Your task to perform on an android device: Go to CNN.com Image 0: 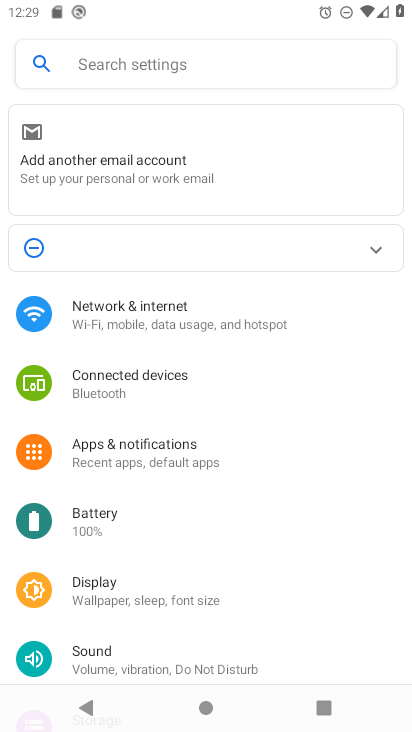
Step 0: press home button
Your task to perform on an android device: Go to CNN.com Image 1: 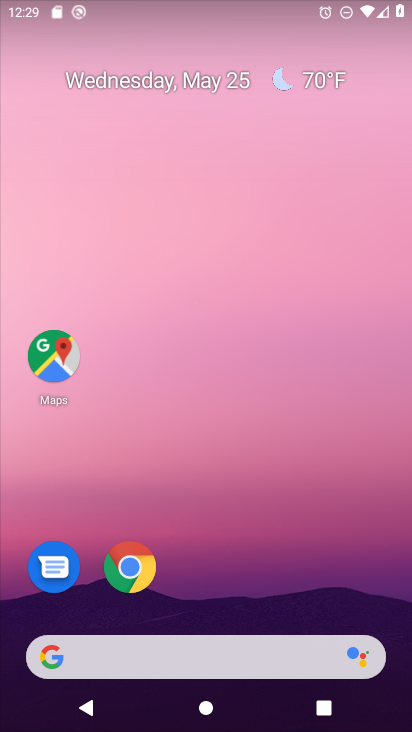
Step 1: click (133, 568)
Your task to perform on an android device: Go to CNN.com Image 2: 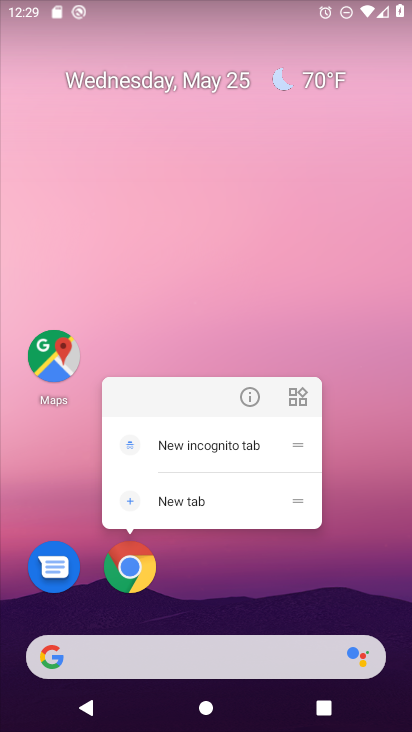
Step 2: click (103, 579)
Your task to perform on an android device: Go to CNN.com Image 3: 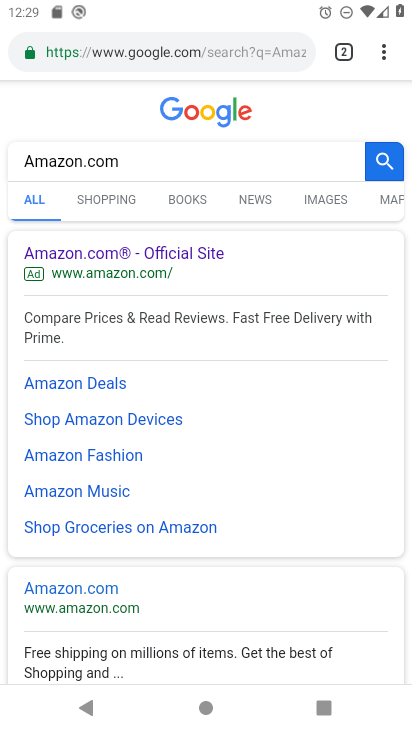
Step 3: click (300, 51)
Your task to perform on an android device: Go to CNN.com Image 4: 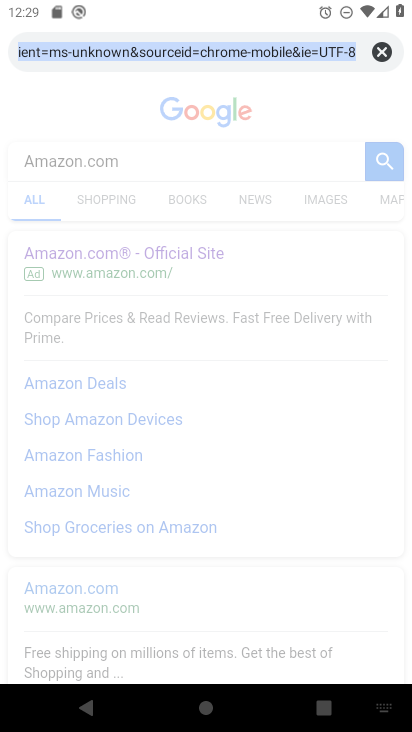
Step 4: click (389, 50)
Your task to perform on an android device: Go to CNN.com Image 5: 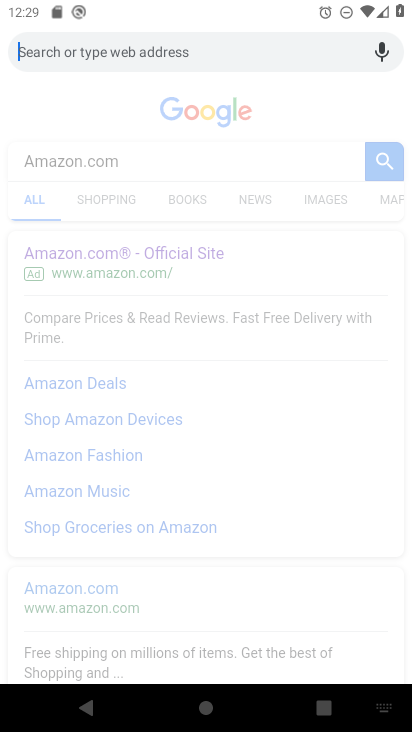
Step 5: type "CNN.com"
Your task to perform on an android device: Go to CNN.com Image 6: 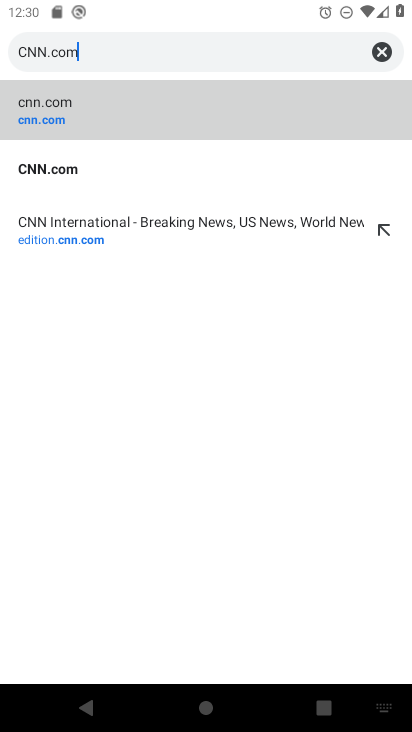
Step 6: click (68, 166)
Your task to perform on an android device: Go to CNN.com Image 7: 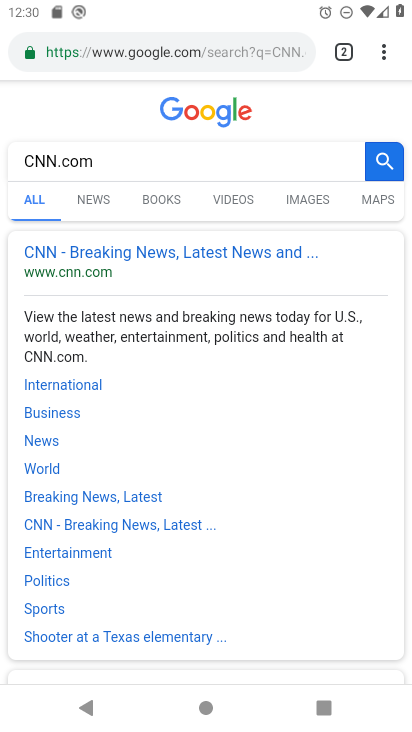
Step 7: task complete